Your task to perform on an android device: delete the emails in spam in the gmail app Image 0: 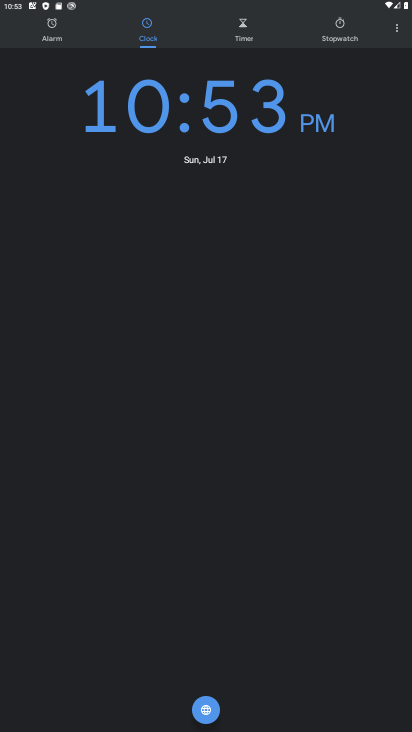
Step 0: press home button
Your task to perform on an android device: delete the emails in spam in the gmail app Image 1: 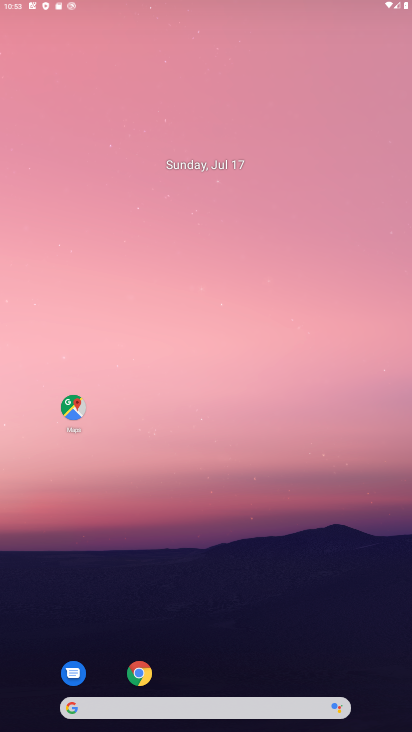
Step 1: drag from (252, 684) to (239, 112)
Your task to perform on an android device: delete the emails in spam in the gmail app Image 2: 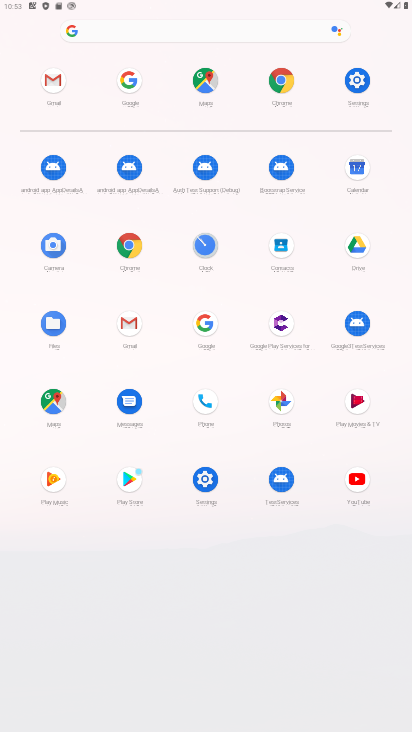
Step 2: click (130, 323)
Your task to perform on an android device: delete the emails in spam in the gmail app Image 3: 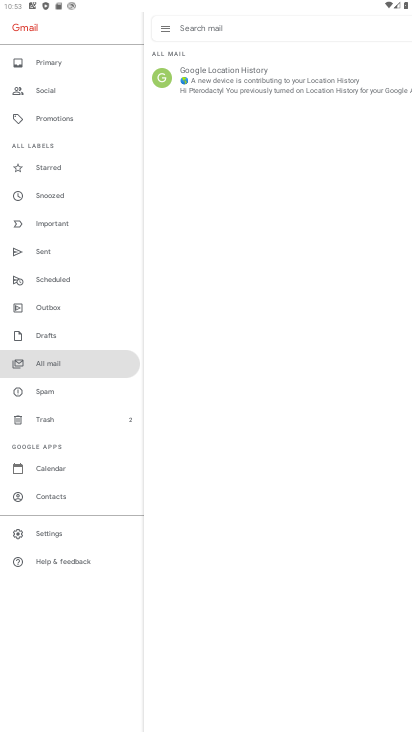
Step 3: click (45, 394)
Your task to perform on an android device: delete the emails in spam in the gmail app Image 4: 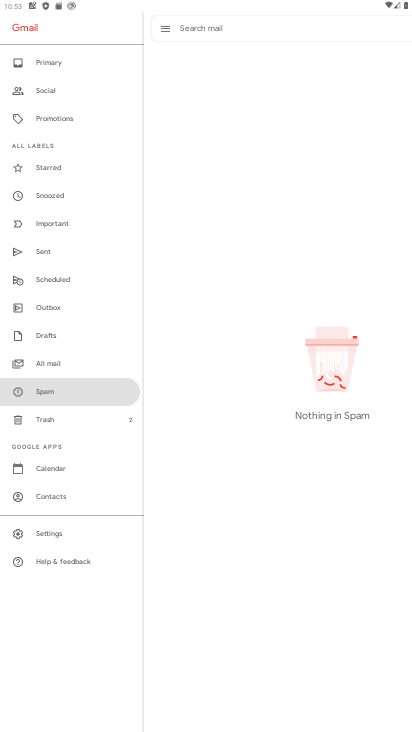
Step 4: task complete